Your task to perform on an android device: set the timer Image 0: 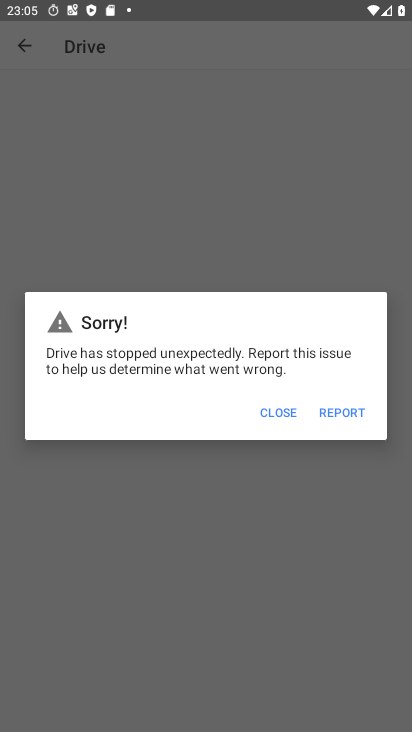
Step 0: press home button
Your task to perform on an android device: set the timer Image 1: 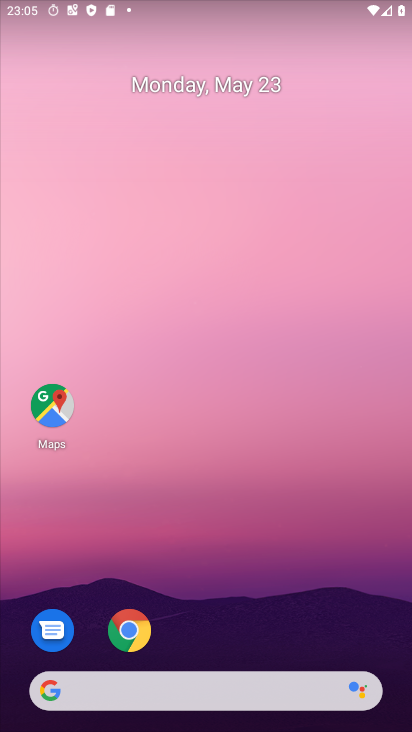
Step 1: drag from (321, 643) to (326, 5)
Your task to perform on an android device: set the timer Image 2: 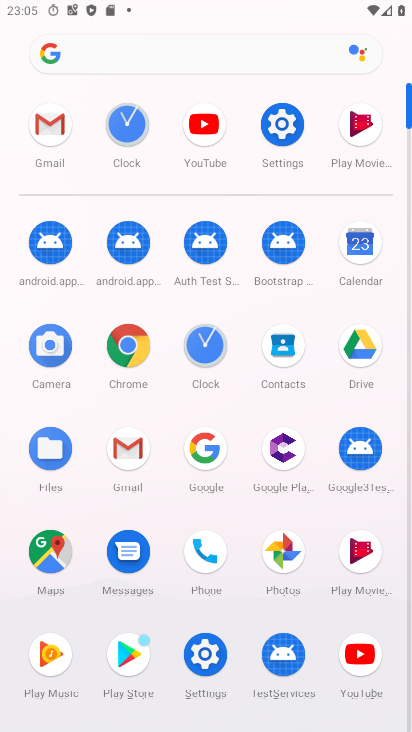
Step 2: click (124, 128)
Your task to perform on an android device: set the timer Image 3: 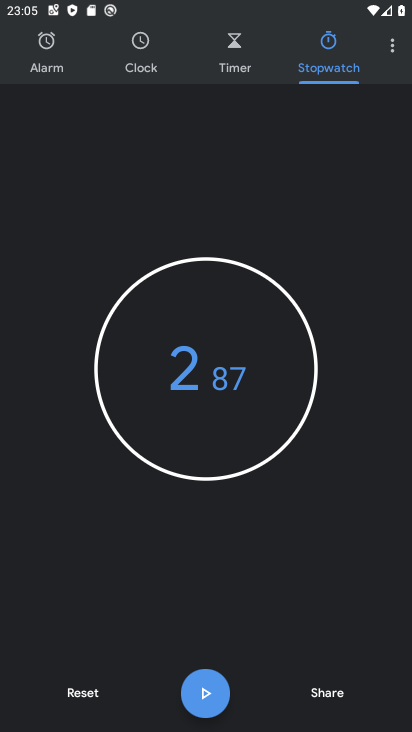
Step 3: click (241, 66)
Your task to perform on an android device: set the timer Image 4: 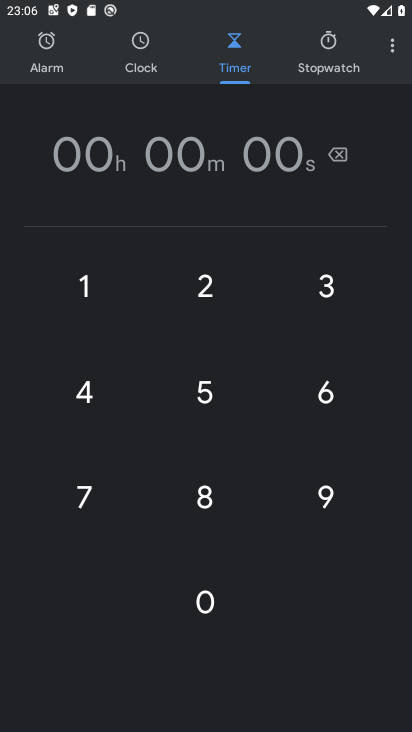
Step 4: click (81, 397)
Your task to perform on an android device: set the timer Image 5: 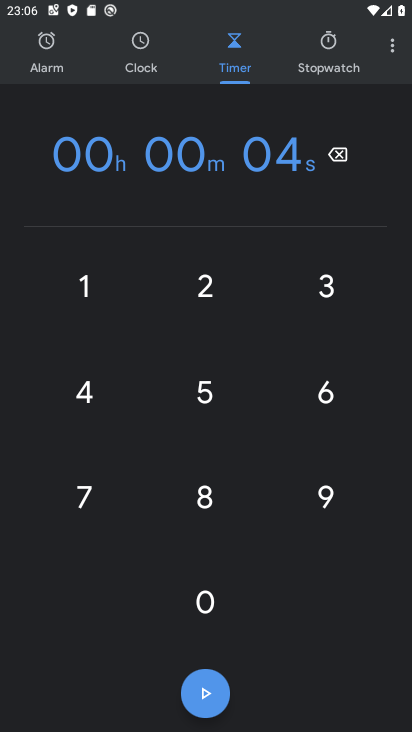
Step 5: click (207, 389)
Your task to perform on an android device: set the timer Image 6: 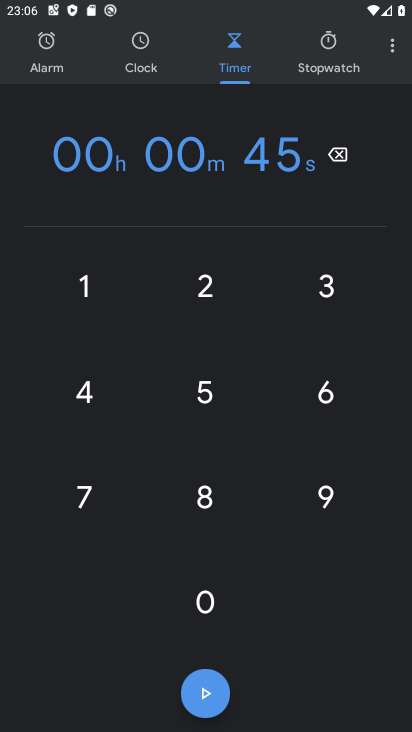
Step 6: click (201, 701)
Your task to perform on an android device: set the timer Image 7: 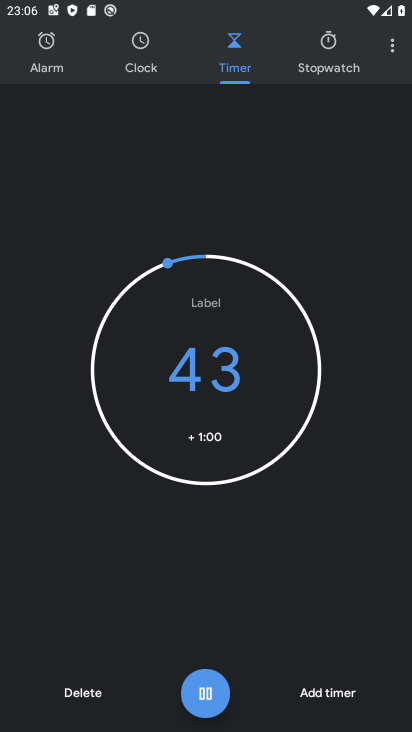
Step 7: task complete